Your task to perform on an android device: Open Google Image 0: 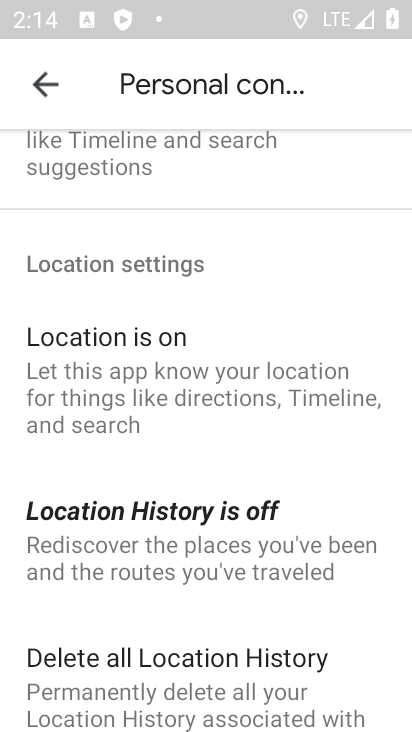
Step 0: press home button
Your task to perform on an android device: Open Google Image 1: 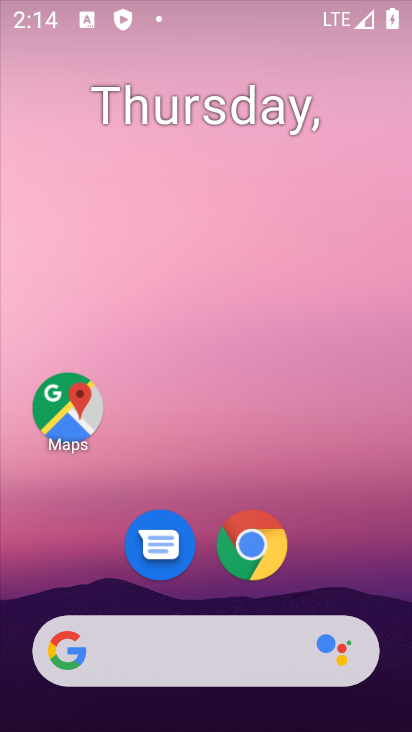
Step 1: drag from (298, 680) to (270, 85)
Your task to perform on an android device: Open Google Image 2: 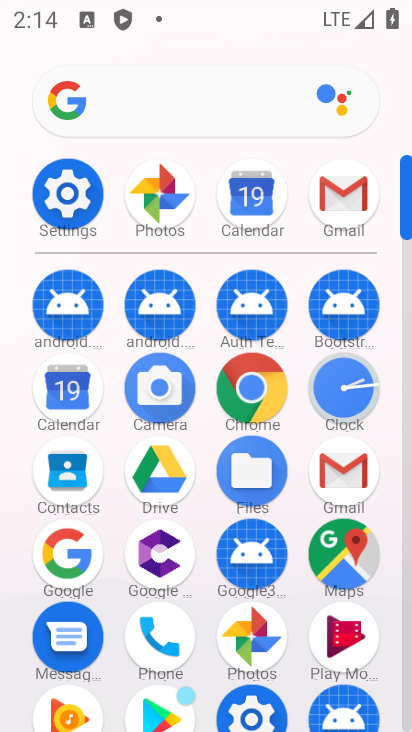
Step 2: click (231, 390)
Your task to perform on an android device: Open Google Image 3: 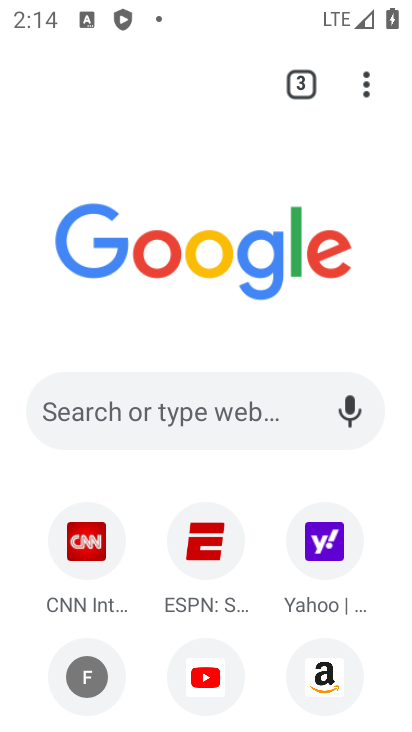
Step 3: task complete